Your task to perform on an android device: turn notification dots on Image 0: 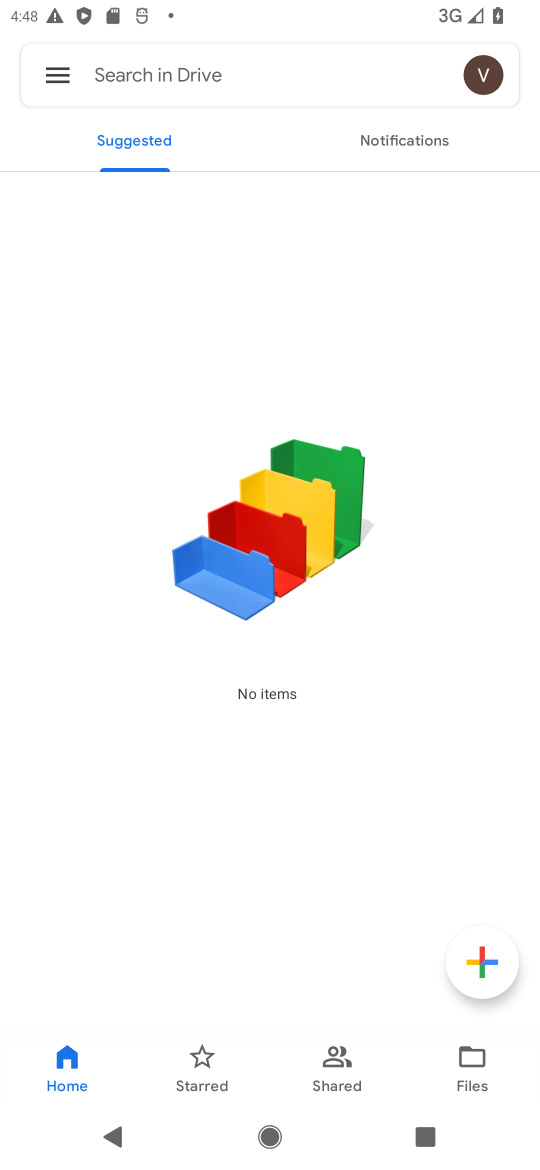
Step 0: press home button
Your task to perform on an android device: turn notification dots on Image 1: 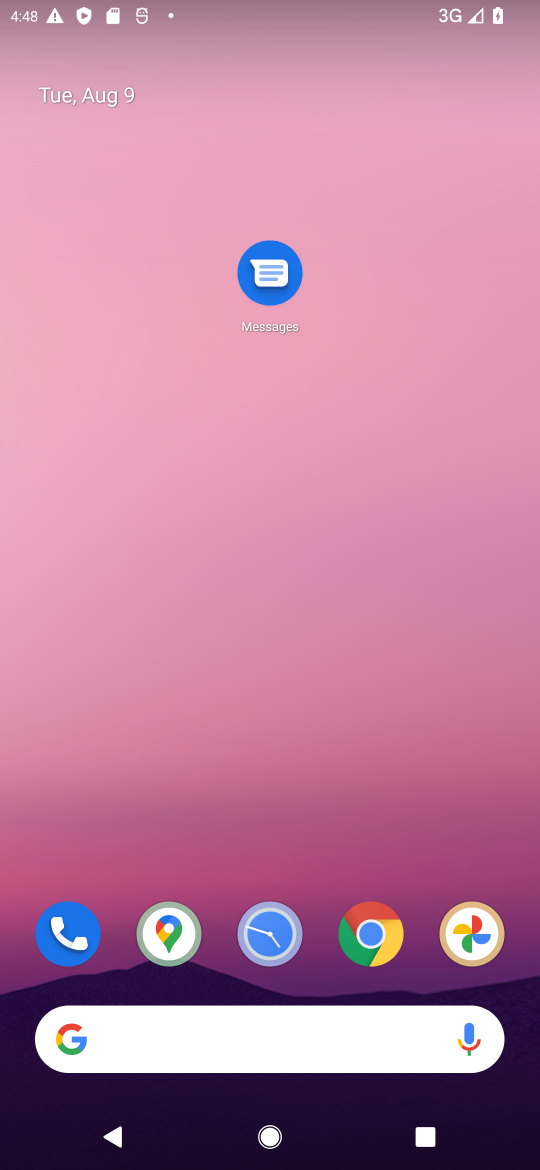
Step 1: drag from (313, 983) to (243, 90)
Your task to perform on an android device: turn notification dots on Image 2: 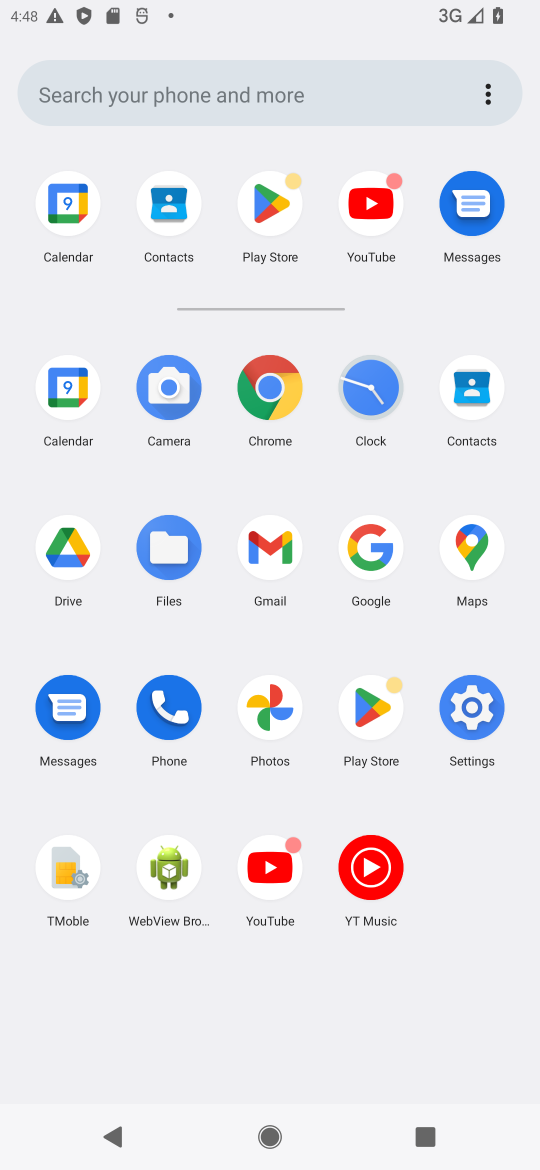
Step 2: click (463, 759)
Your task to perform on an android device: turn notification dots on Image 3: 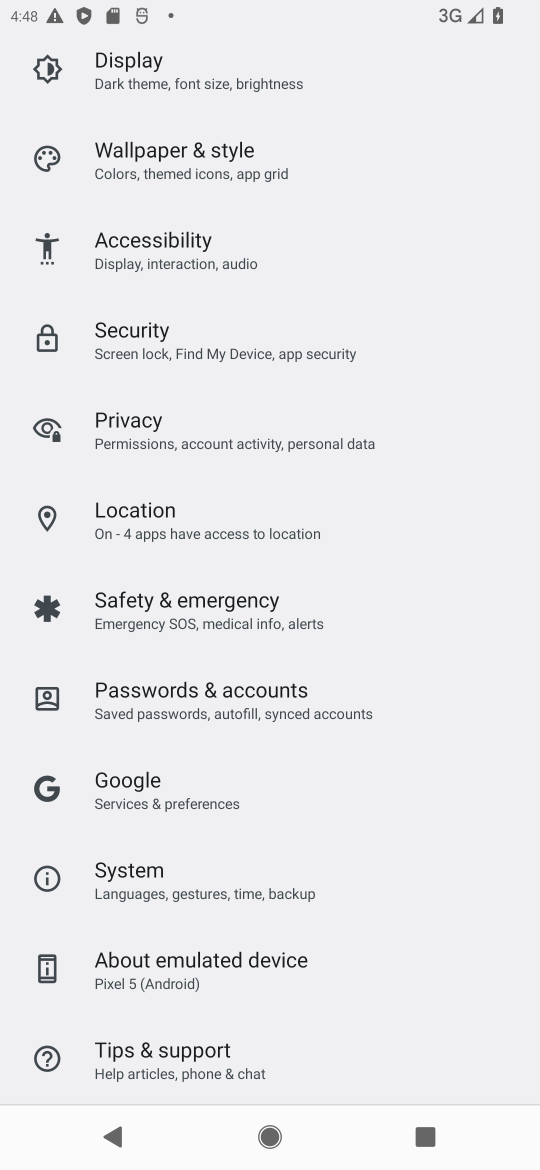
Step 3: task complete